Your task to perform on an android device: Go to Wikipedia Image 0: 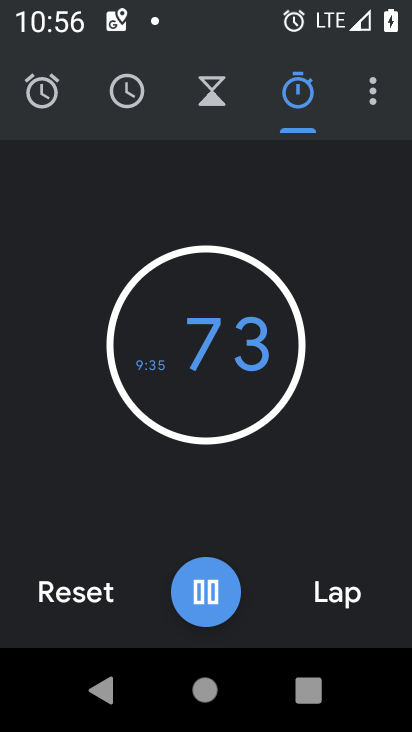
Step 0: press home button
Your task to perform on an android device: Go to Wikipedia Image 1: 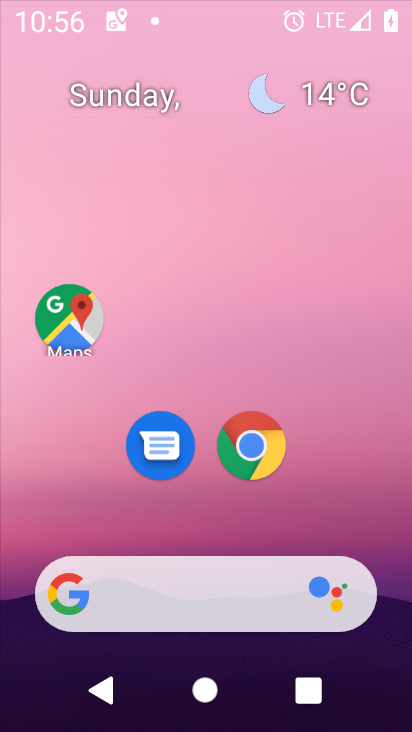
Step 1: drag from (171, 544) to (223, 161)
Your task to perform on an android device: Go to Wikipedia Image 2: 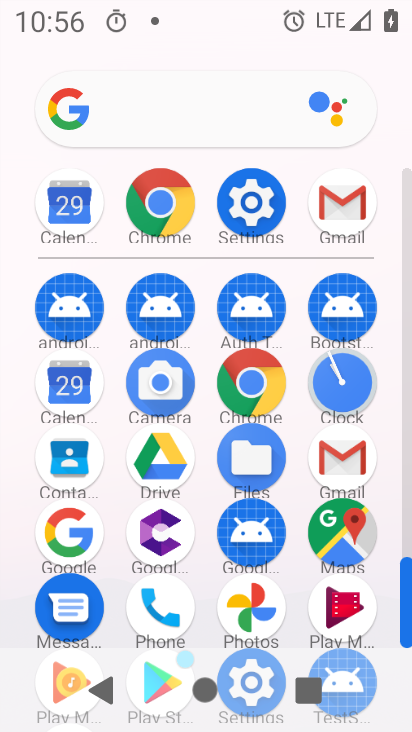
Step 2: click (193, 110)
Your task to perform on an android device: Go to Wikipedia Image 3: 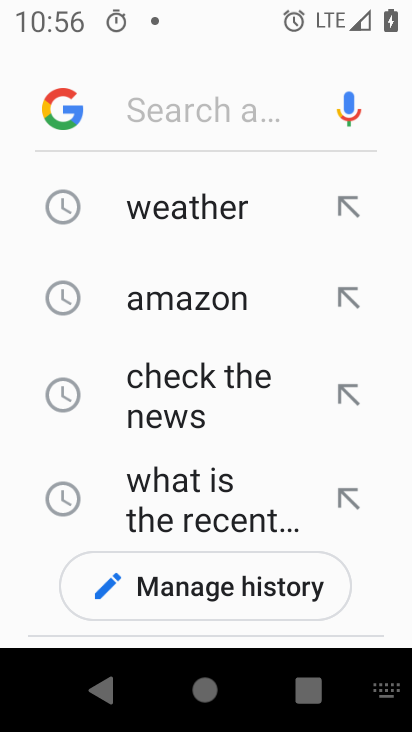
Step 3: type "wikipedia"
Your task to perform on an android device: Go to Wikipedia Image 4: 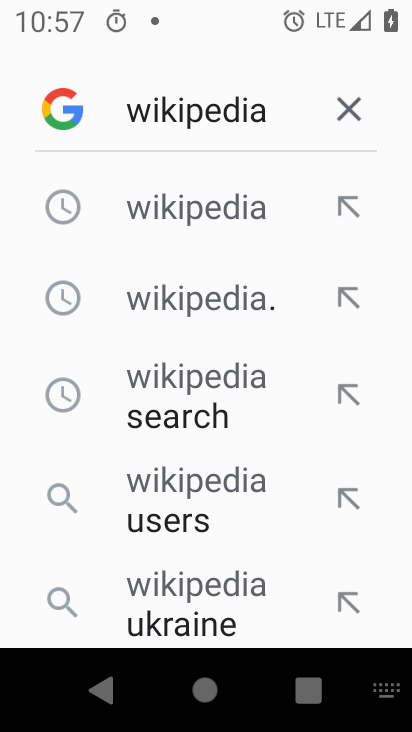
Step 4: click (143, 195)
Your task to perform on an android device: Go to Wikipedia Image 5: 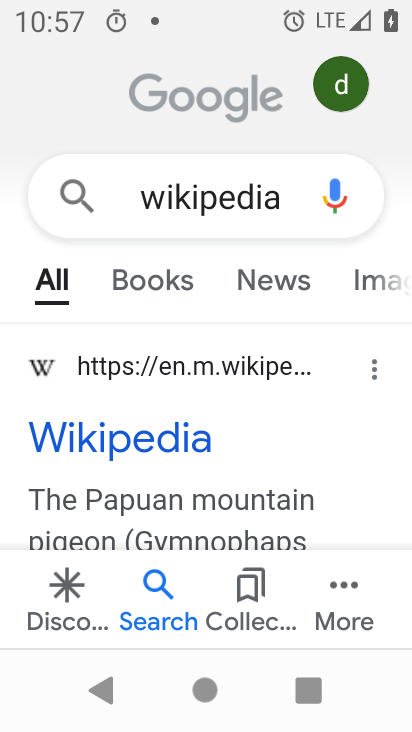
Step 5: click (186, 455)
Your task to perform on an android device: Go to Wikipedia Image 6: 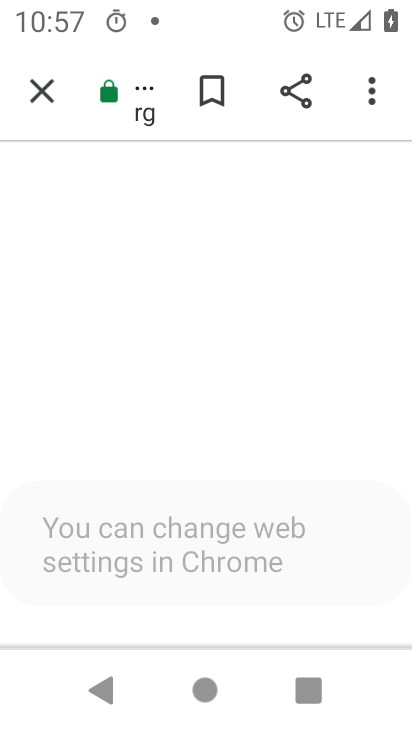
Step 6: task complete